Your task to perform on an android device: Open my contact list Image 0: 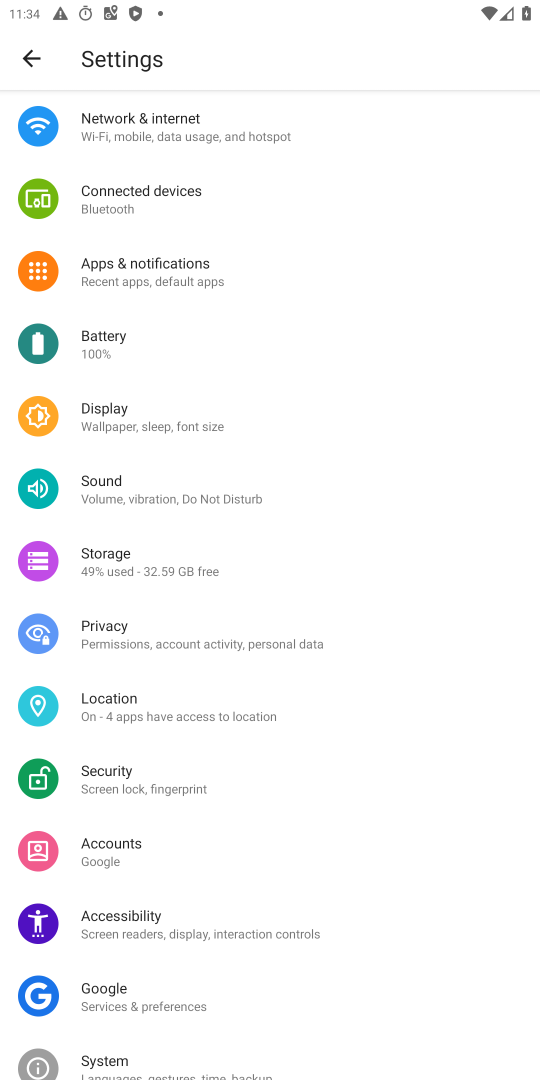
Step 0: press home button
Your task to perform on an android device: Open my contact list Image 1: 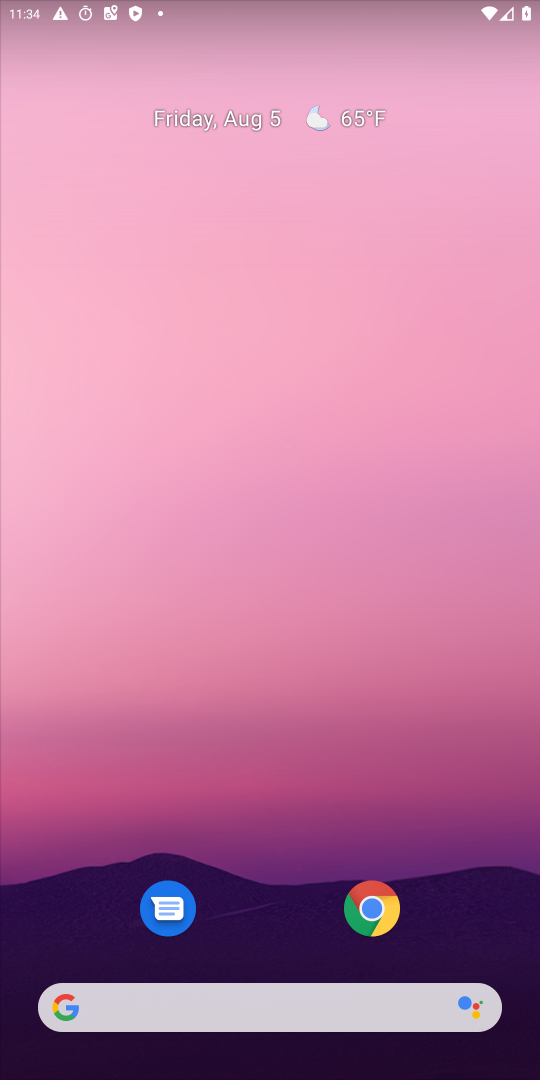
Step 1: drag from (63, 1053) to (221, 696)
Your task to perform on an android device: Open my contact list Image 2: 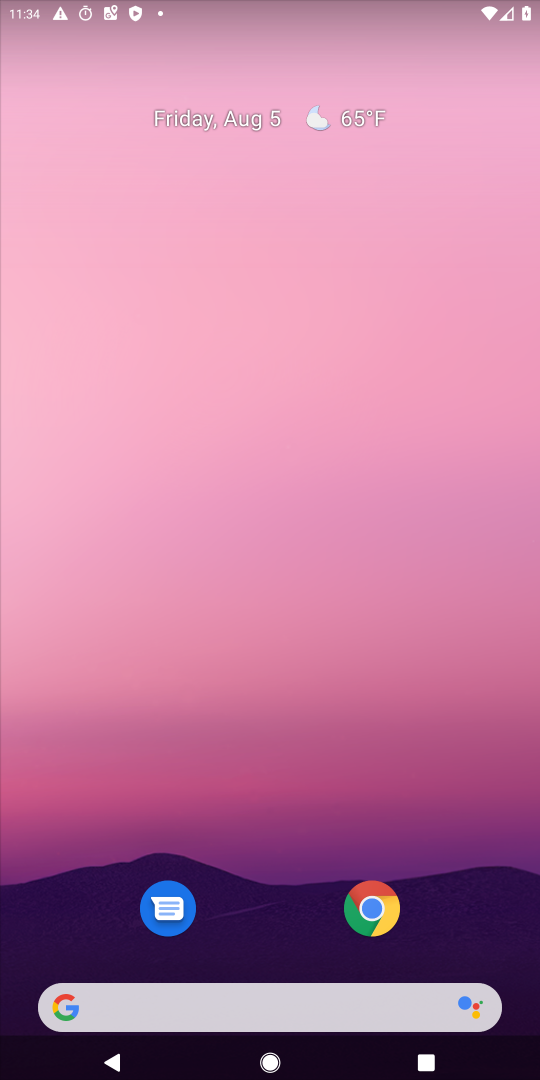
Step 2: click (43, 903)
Your task to perform on an android device: Open my contact list Image 3: 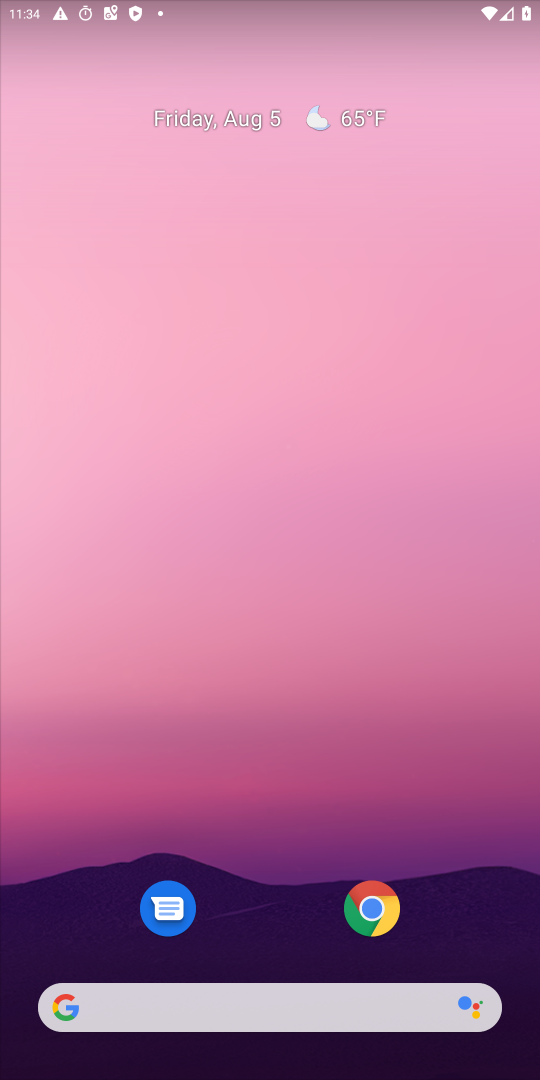
Step 3: drag from (43, 903) to (394, 327)
Your task to perform on an android device: Open my contact list Image 4: 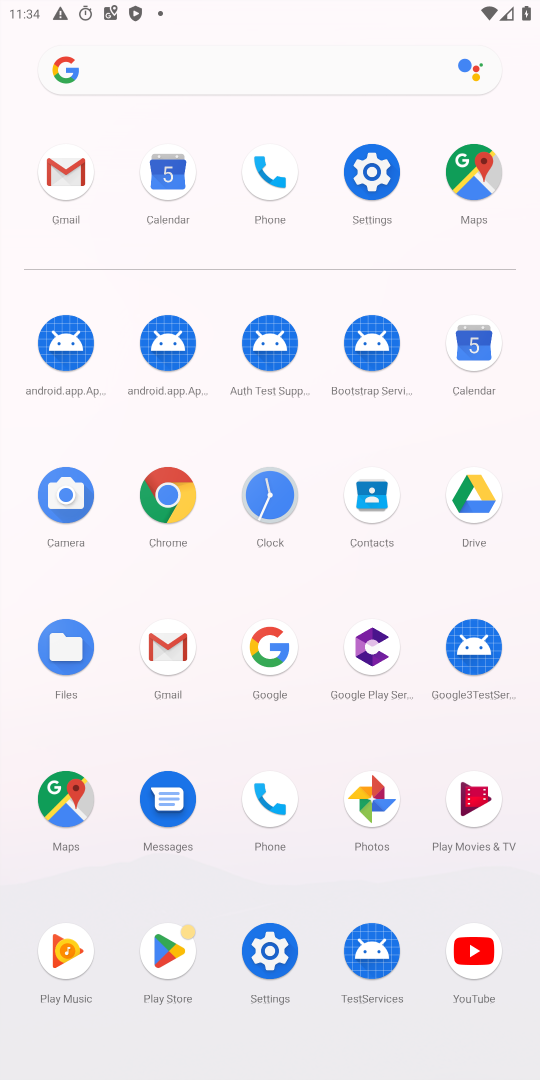
Step 4: click (252, 798)
Your task to perform on an android device: Open my contact list Image 5: 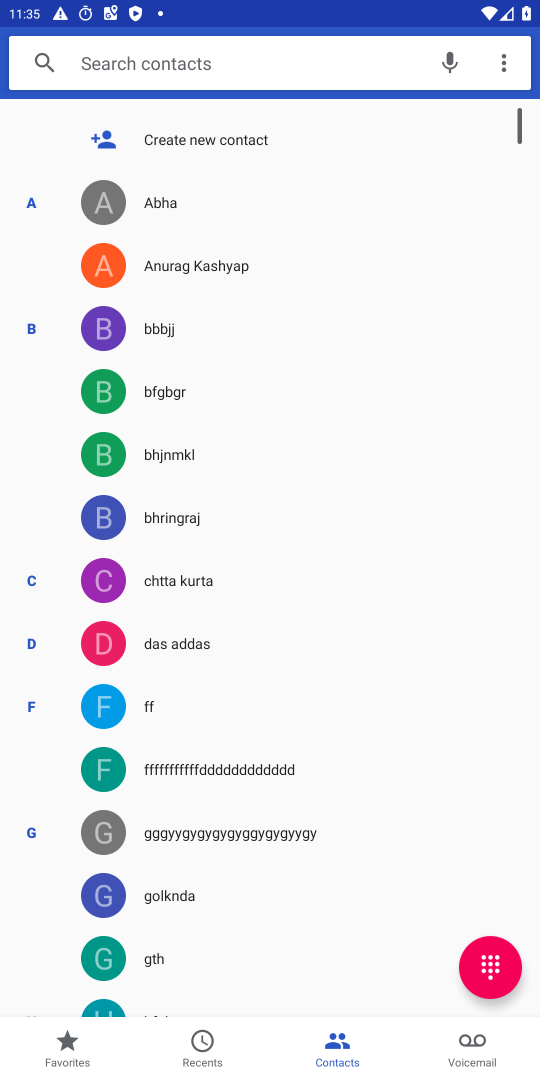
Step 5: task complete